Your task to perform on an android device: Go to internet settings Image 0: 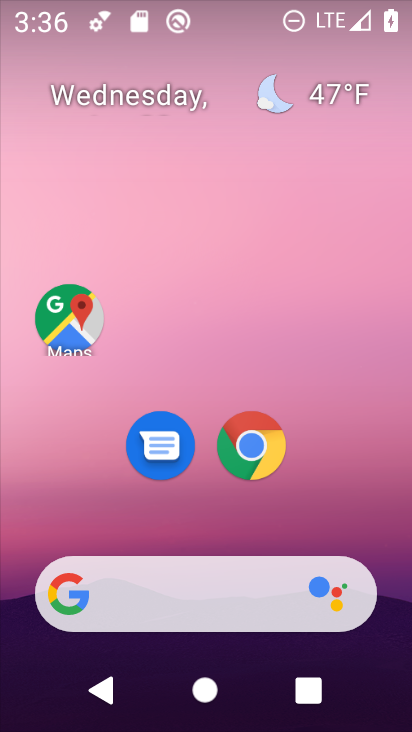
Step 0: drag from (302, 548) to (257, 85)
Your task to perform on an android device: Go to internet settings Image 1: 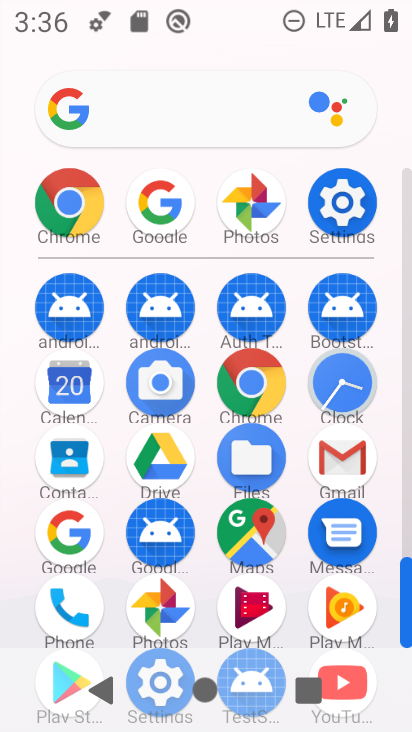
Step 1: click (345, 205)
Your task to perform on an android device: Go to internet settings Image 2: 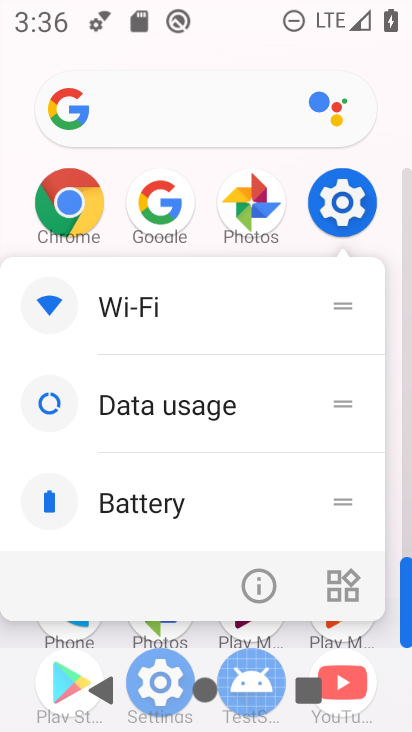
Step 2: click (345, 205)
Your task to perform on an android device: Go to internet settings Image 3: 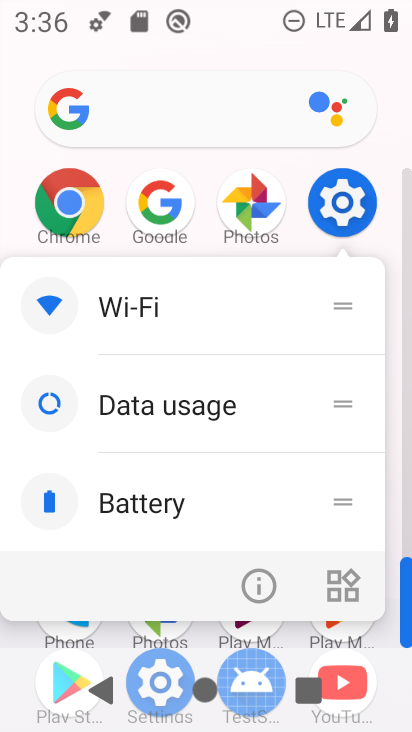
Step 3: click (345, 205)
Your task to perform on an android device: Go to internet settings Image 4: 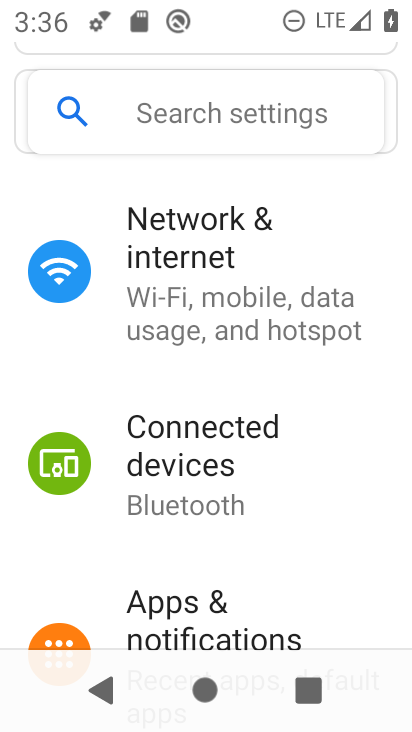
Step 4: click (171, 242)
Your task to perform on an android device: Go to internet settings Image 5: 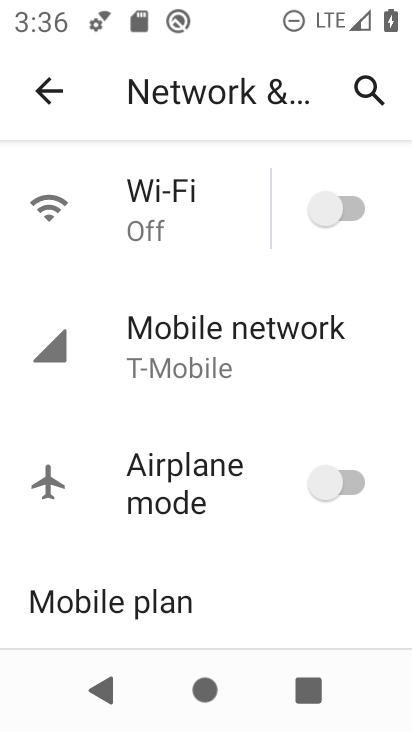
Step 5: task complete